Your task to perform on an android device: check storage Image 0: 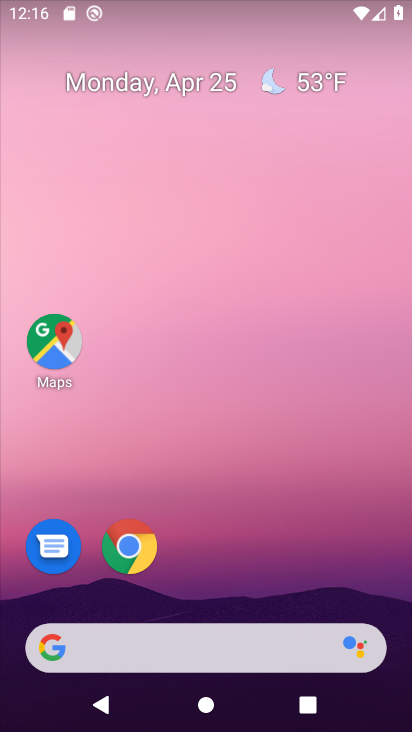
Step 0: drag from (244, 517) to (223, 170)
Your task to perform on an android device: check storage Image 1: 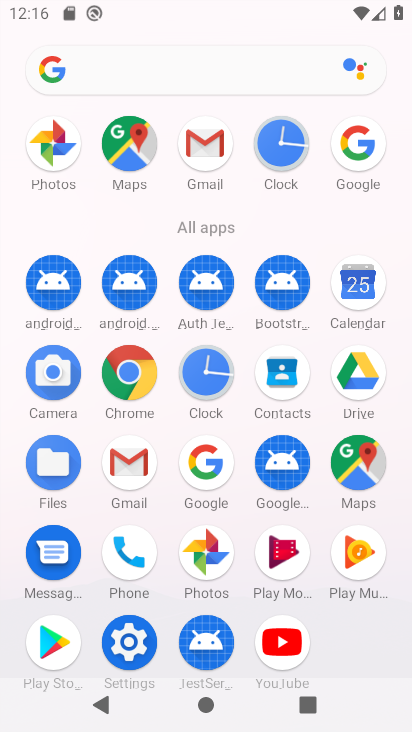
Step 1: click (121, 651)
Your task to perform on an android device: check storage Image 2: 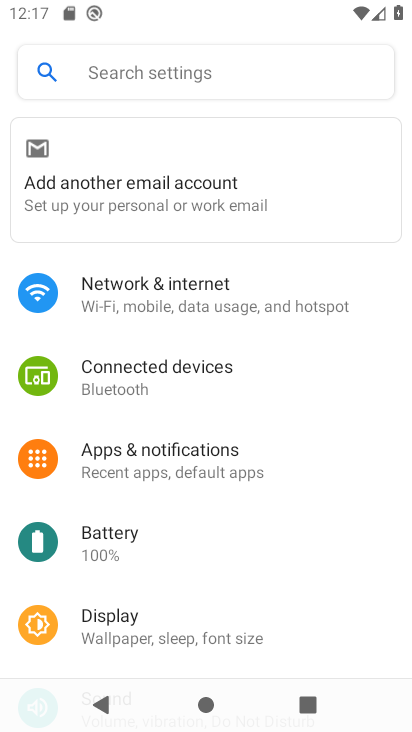
Step 2: drag from (192, 550) to (194, 268)
Your task to perform on an android device: check storage Image 3: 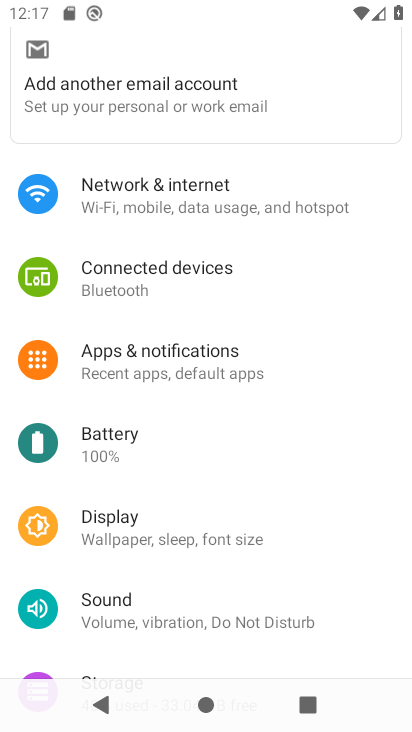
Step 3: drag from (86, 623) to (82, 417)
Your task to perform on an android device: check storage Image 4: 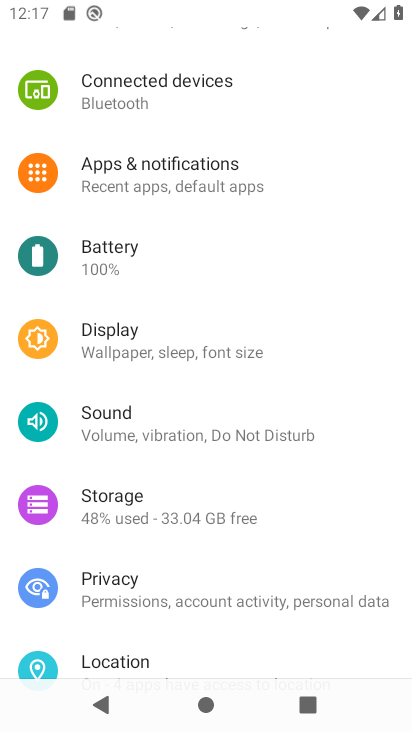
Step 4: click (102, 522)
Your task to perform on an android device: check storage Image 5: 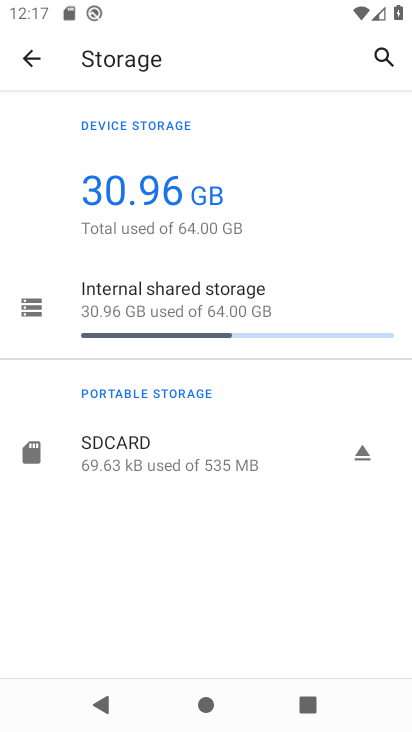
Step 5: task complete